Your task to perform on an android device: toggle wifi Image 0: 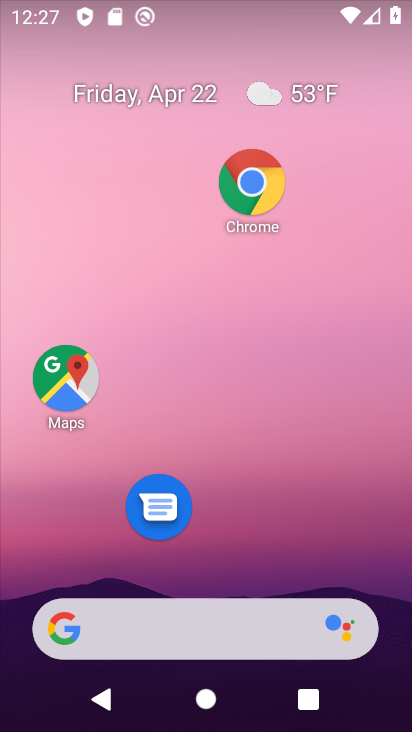
Step 0: drag from (223, 487) to (211, 104)
Your task to perform on an android device: toggle wifi Image 1: 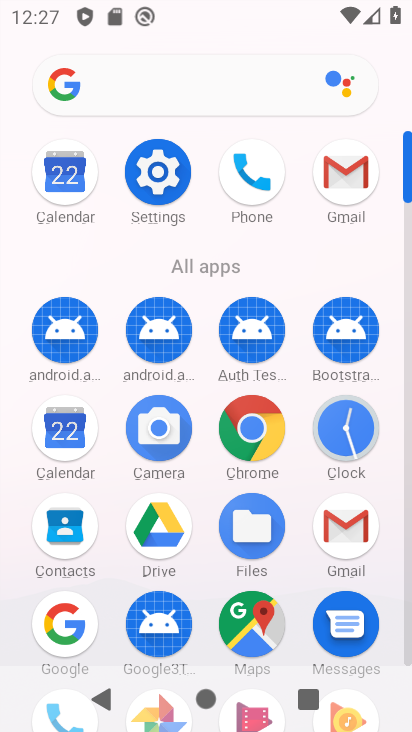
Step 1: click (158, 178)
Your task to perform on an android device: toggle wifi Image 2: 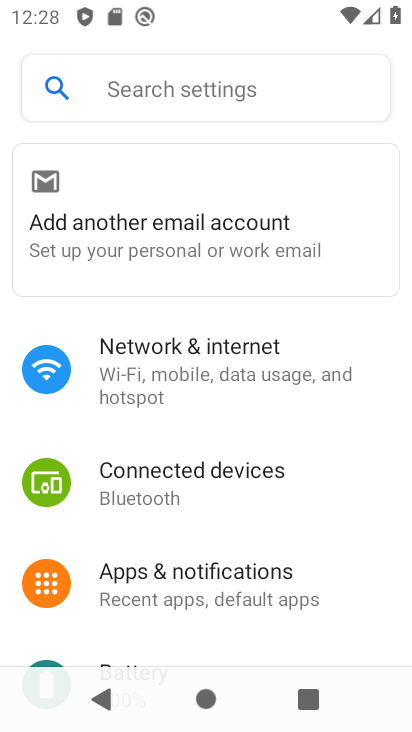
Step 2: click (222, 348)
Your task to perform on an android device: toggle wifi Image 3: 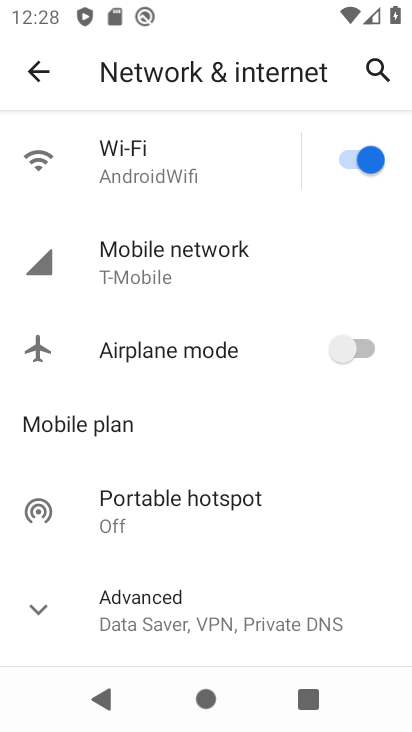
Step 3: click (355, 164)
Your task to perform on an android device: toggle wifi Image 4: 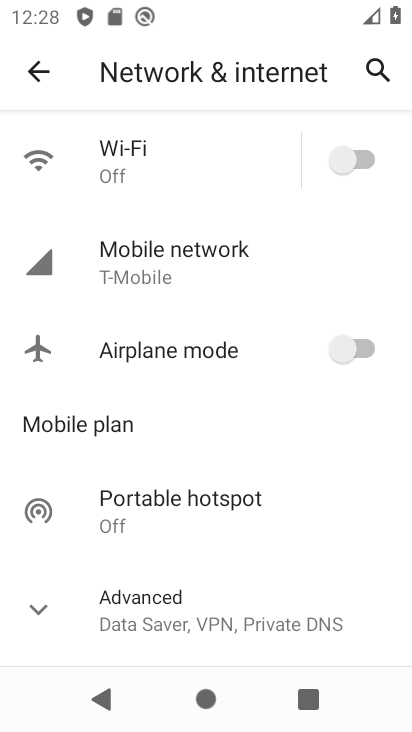
Step 4: task complete